Your task to perform on an android device: Open ESPN.com Image 0: 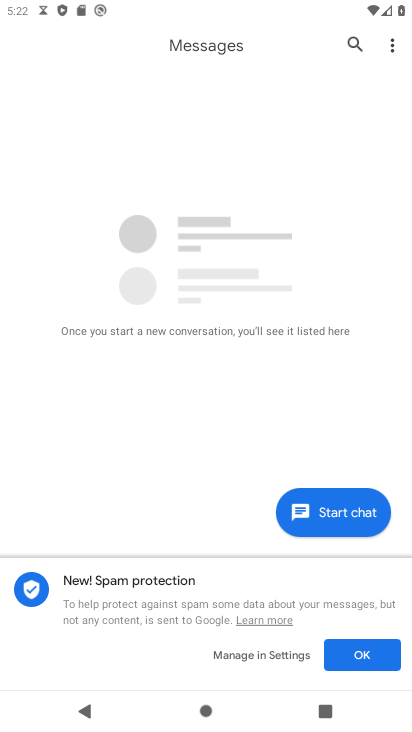
Step 0: press back button
Your task to perform on an android device: Open ESPN.com Image 1: 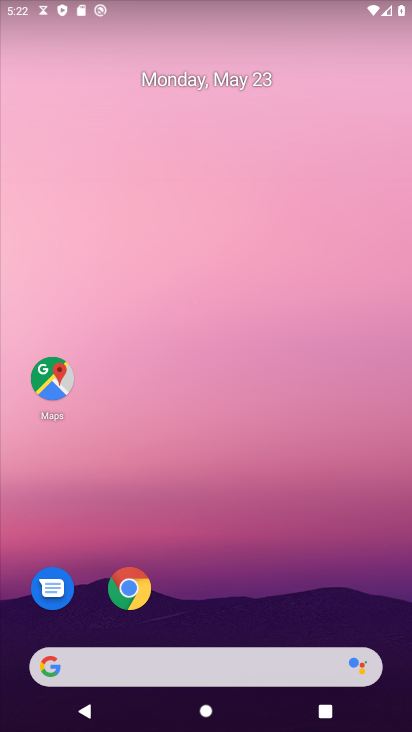
Step 1: drag from (201, 558) to (174, 6)
Your task to perform on an android device: Open ESPN.com Image 2: 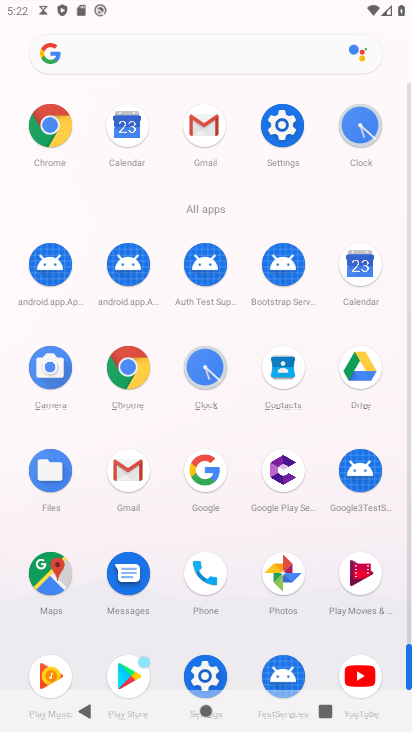
Step 2: drag from (4, 559) to (12, 233)
Your task to perform on an android device: Open ESPN.com Image 3: 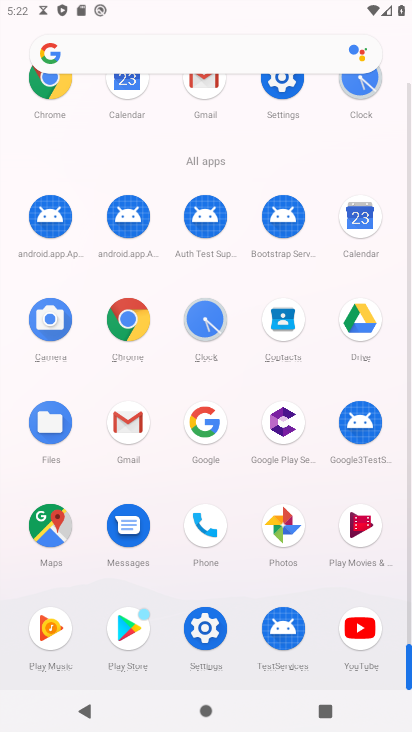
Step 3: click (125, 310)
Your task to perform on an android device: Open ESPN.com Image 4: 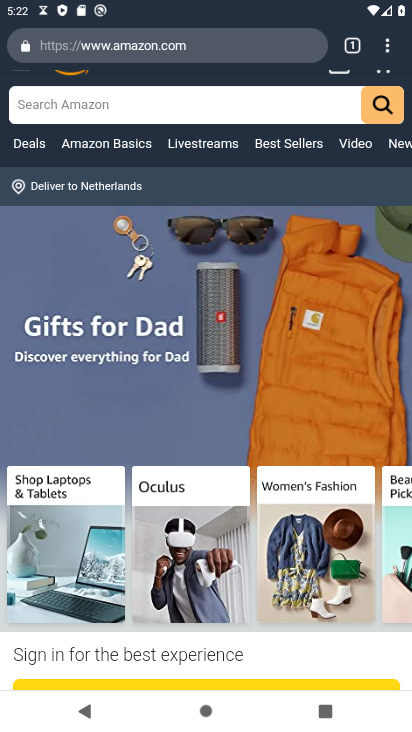
Step 4: click (175, 42)
Your task to perform on an android device: Open ESPN.com Image 5: 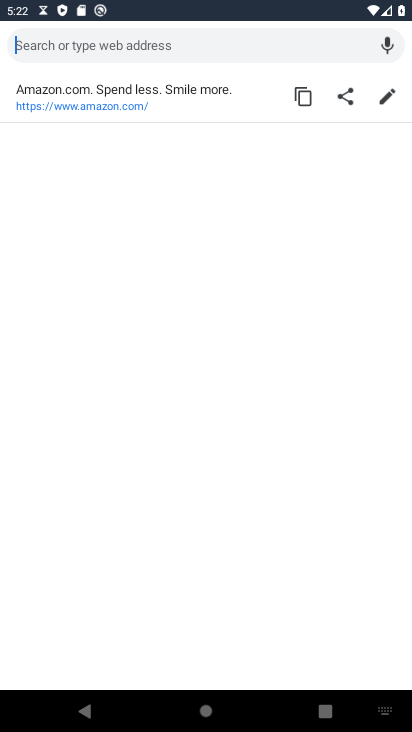
Step 5: type "ESPN.com"
Your task to perform on an android device: Open ESPN.com Image 6: 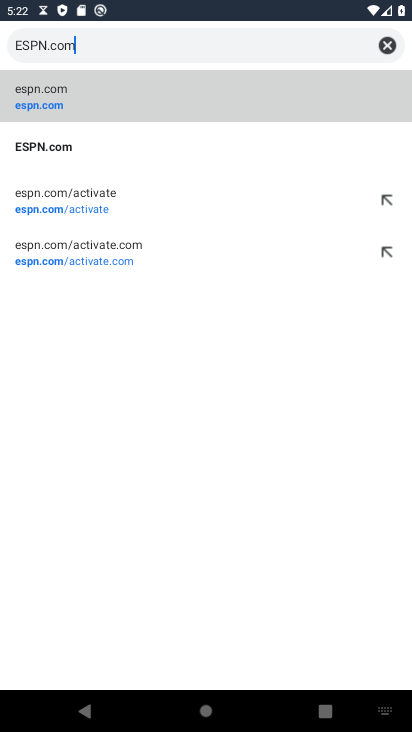
Step 6: type ""
Your task to perform on an android device: Open ESPN.com Image 7: 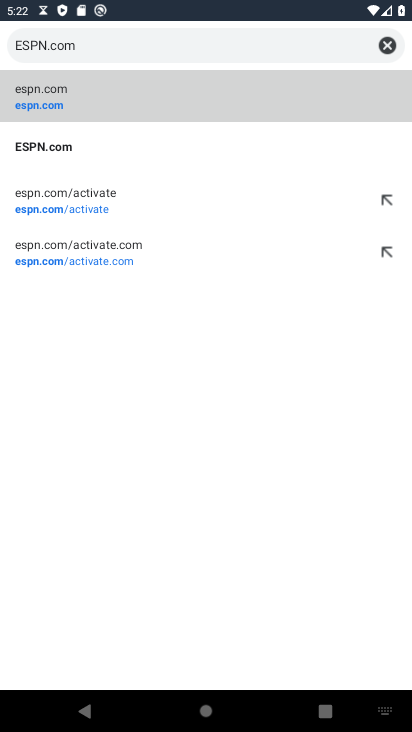
Step 7: click (77, 94)
Your task to perform on an android device: Open ESPN.com Image 8: 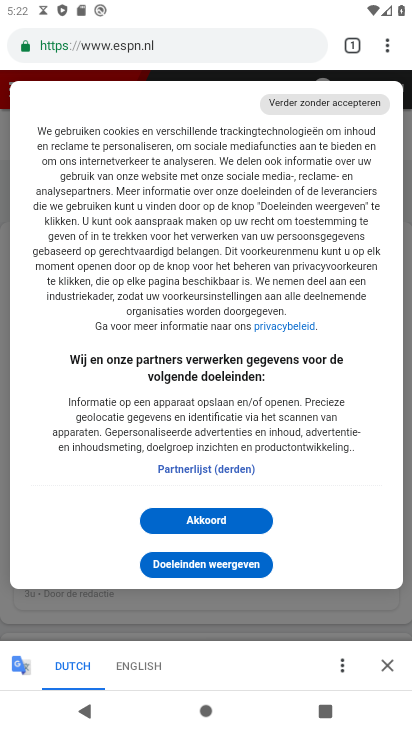
Step 8: task complete